Your task to perform on an android device: What's the weather going to be tomorrow? Image 0: 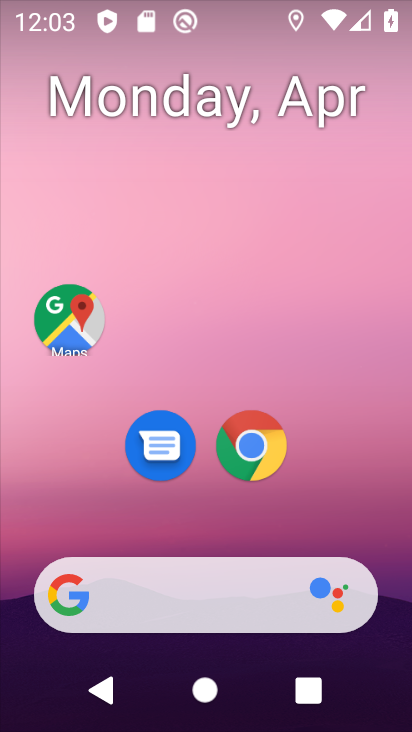
Step 0: drag from (11, 190) to (405, 232)
Your task to perform on an android device: What's the weather going to be tomorrow? Image 1: 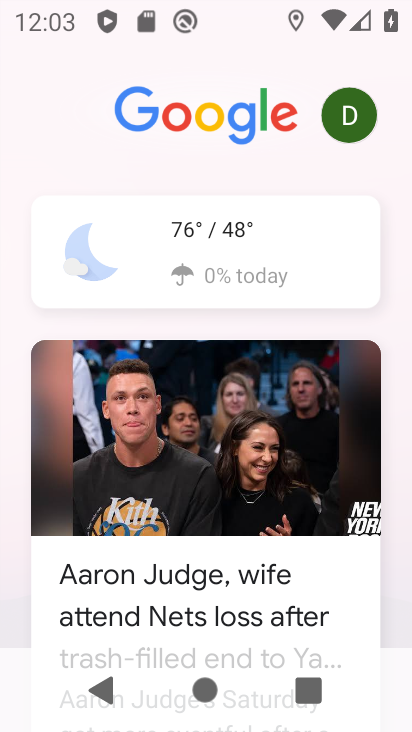
Step 1: click (201, 233)
Your task to perform on an android device: What's the weather going to be tomorrow? Image 2: 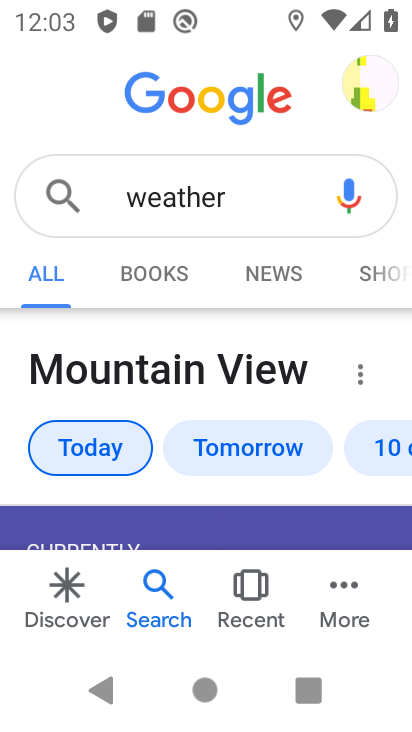
Step 2: click (249, 456)
Your task to perform on an android device: What's the weather going to be tomorrow? Image 3: 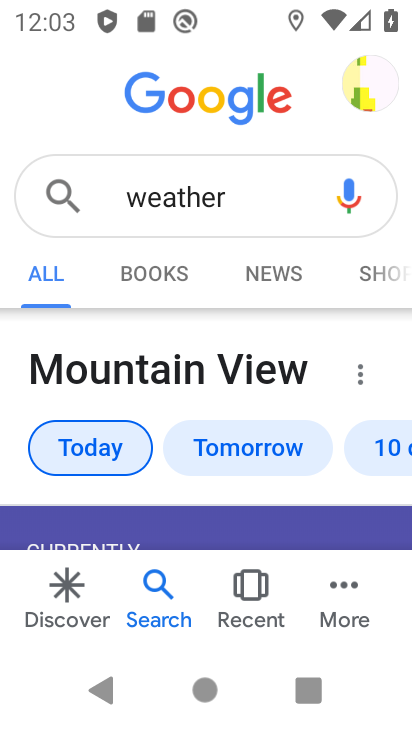
Step 3: click (248, 445)
Your task to perform on an android device: What's the weather going to be tomorrow? Image 4: 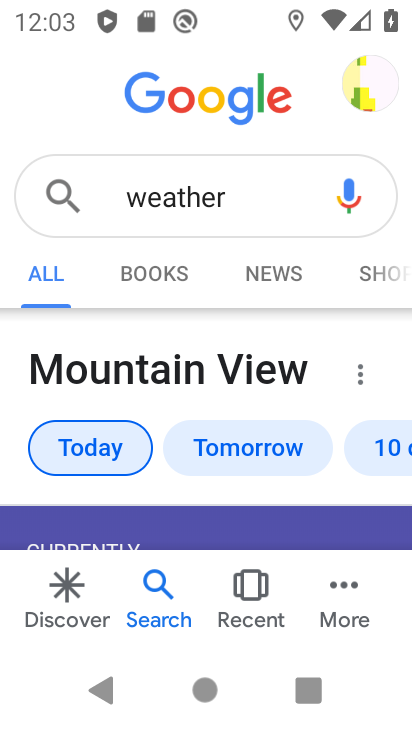
Step 4: click (248, 445)
Your task to perform on an android device: What's the weather going to be tomorrow? Image 5: 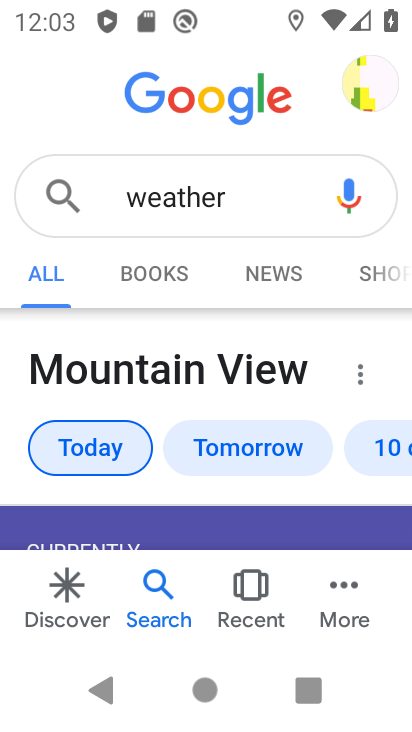
Step 5: click (248, 445)
Your task to perform on an android device: What's the weather going to be tomorrow? Image 6: 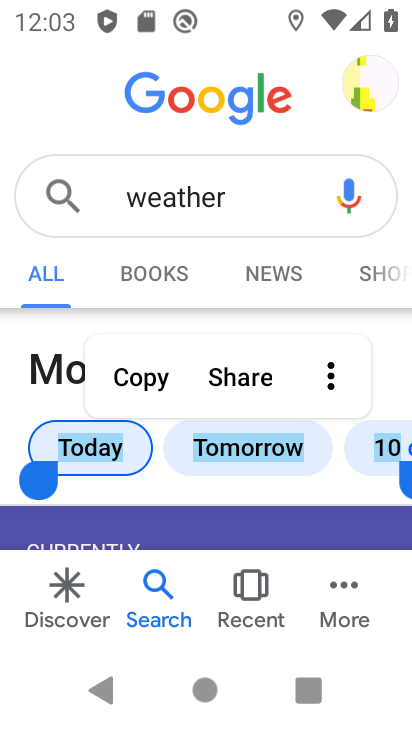
Step 6: click (244, 188)
Your task to perform on an android device: What's the weather going to be tomorrow? Image 7: 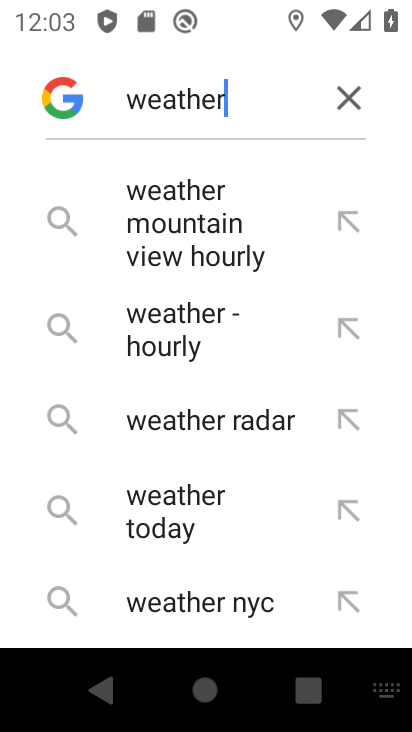
Step 7: type " tomorrow"
Your task to perform on an android device: What's the weather going to be tomorrow? Image 8: 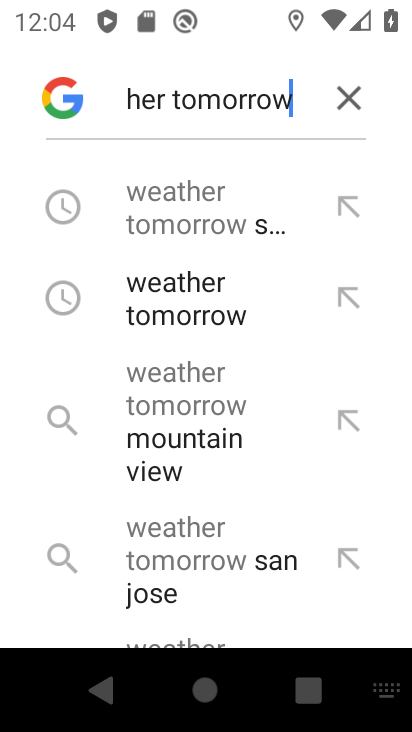
Step 8: click (196, 295)
Your task to perform on an android device: What's the weather going to be tomorrow? Image 9: 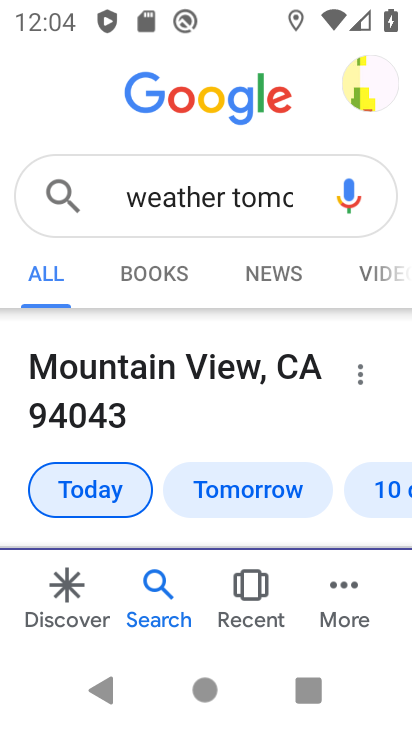
Step 9: drag from (264, 465) to (233, 158)
Your task to perform on an android device: What's the weather going to be tomorrow? Image 10: 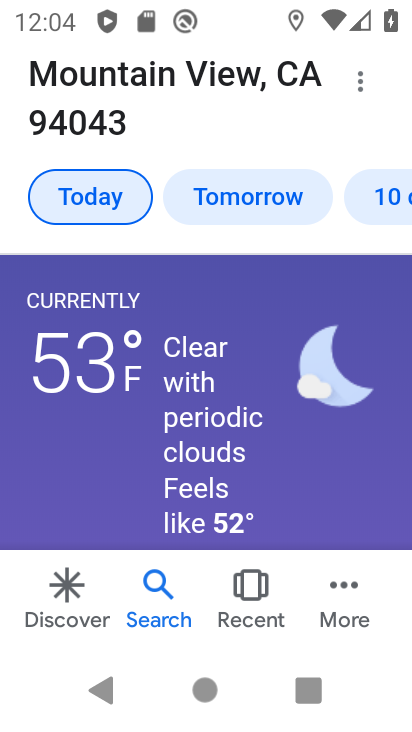
Step 10: click (233, 190)
Your task to perform on an android device: What's the weather going to be tomorrow? Image 11: 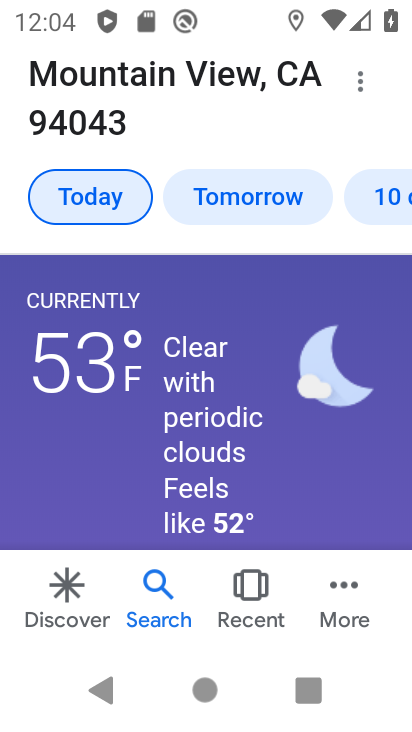
Step 11: click (233, 189)
Your task to perform on an android device: What's the weather going to be tomorrow? Image 12: 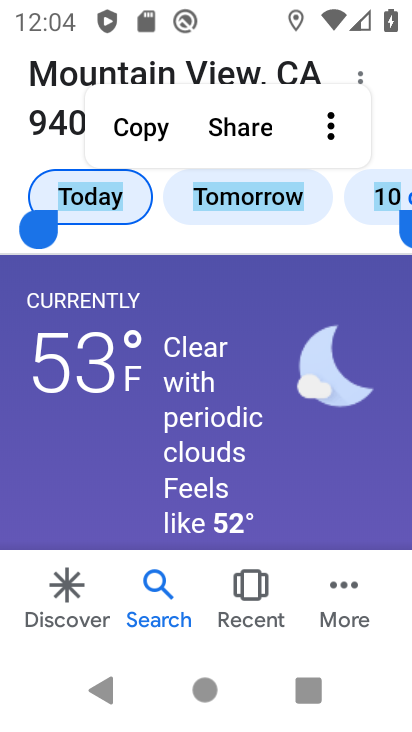
Step 12: task complete